Your task to perform on an android device: manage bookmarks in the chrome app Image 0: 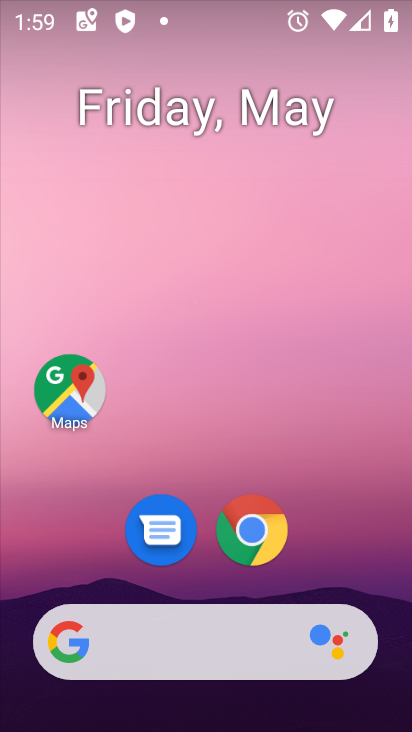
Step 0: click (256, 532)
Your task to perform on an android device: manage bookmarks in the chrome app Image 1: 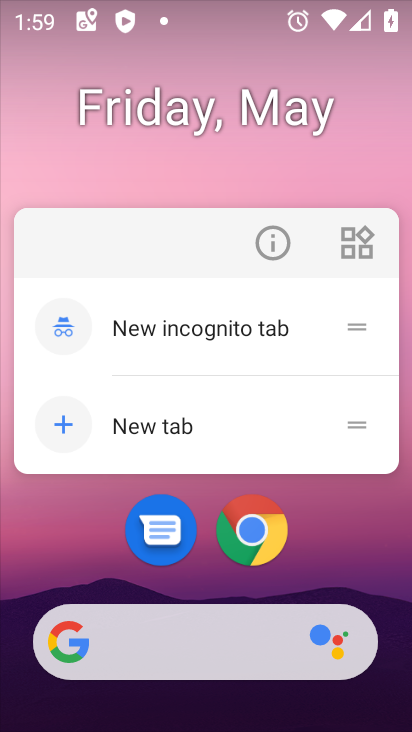
Step 1: click (255, 531)
Your task to perform on an android device: manage bookmarks in the chrome app Image 2: 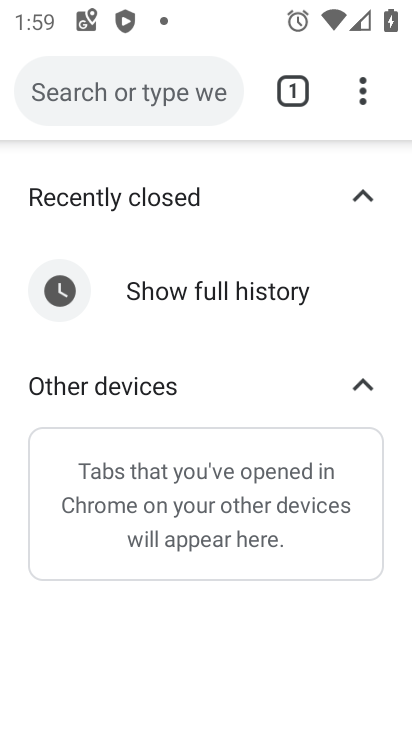
Step 2: click (371, 103)
Your task to perform on an android device: manage bookmarks in the chrome app Image 3: 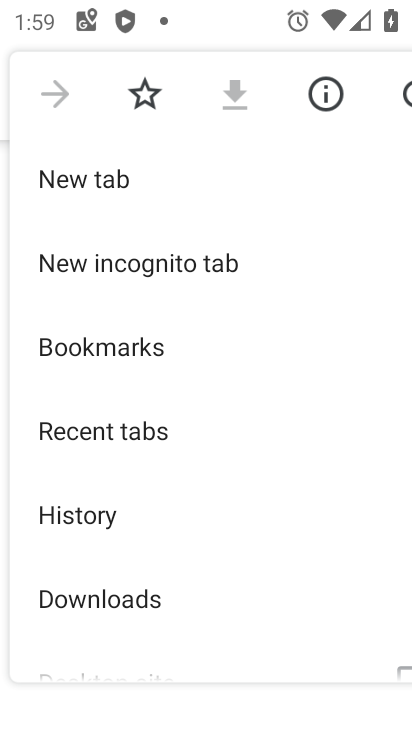
Step 3: click (104, 323)
Your task to perform on an android device: manage bookmarks in the chrome app Image 4: 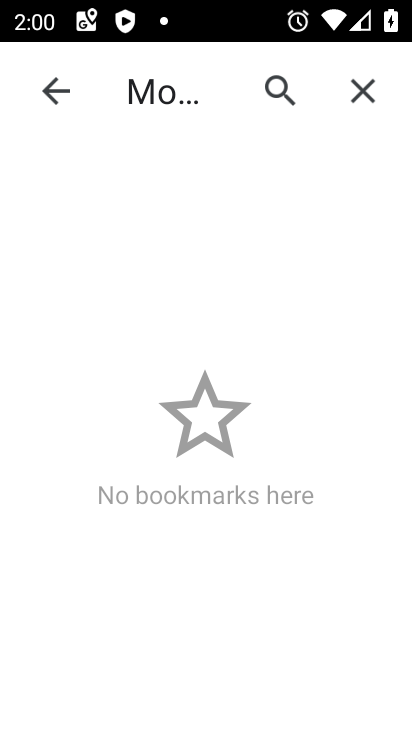
Step 4: click (356, 92)
Your task to perform on an android device: manage bookmarks in the chrome app Image 5: 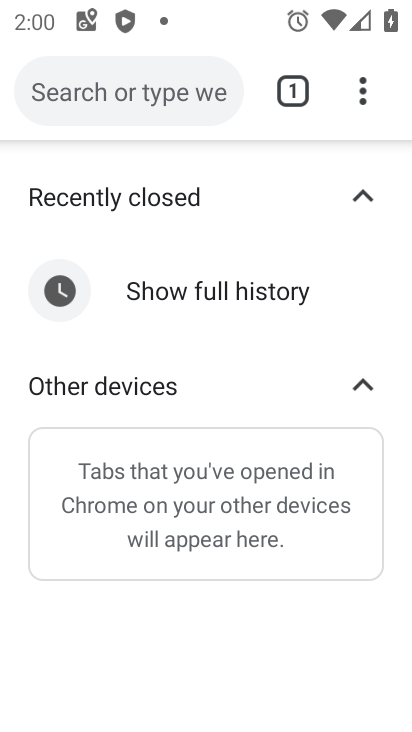
Step 5: click (357, 94)
Your task to perform on an android device: manage bookmarks in the chrome app Image 6: 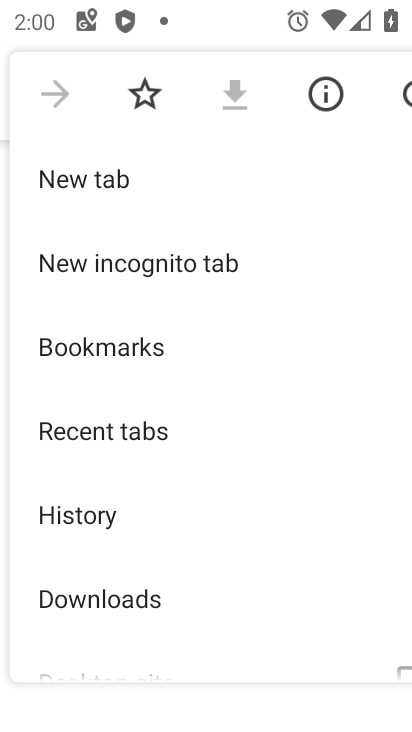
Step 6: click (152, 108)
Your task to perform on an android device: manage bookmarks in the chrome app Image 7: 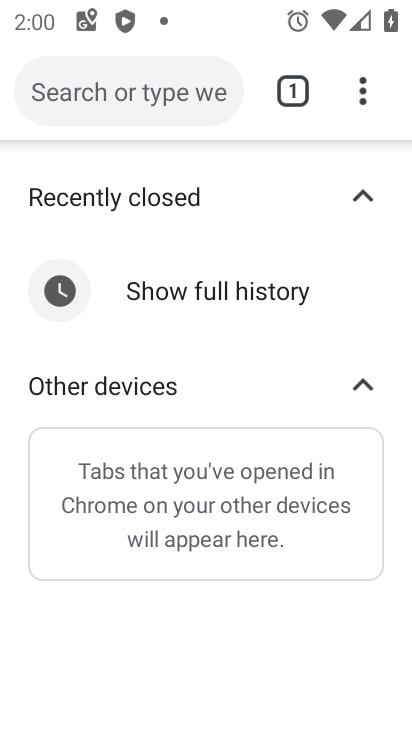
Step 7: task complete